Your task to perform on an android device: What's on my calendar today? Image 0: 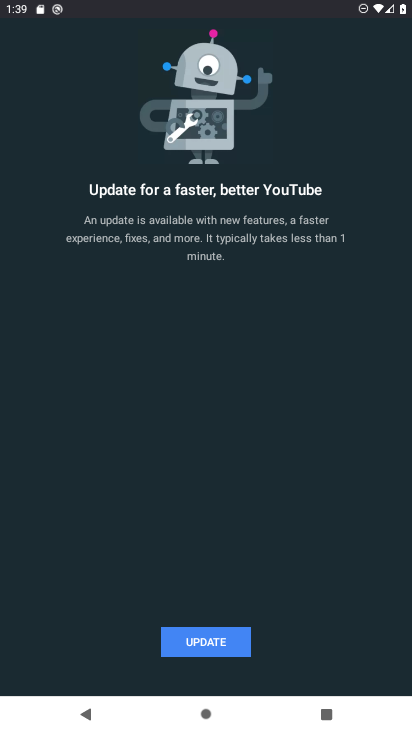
Step 0: press home button
Your task to perform on an android device: What's on my calendar today? Image 1: 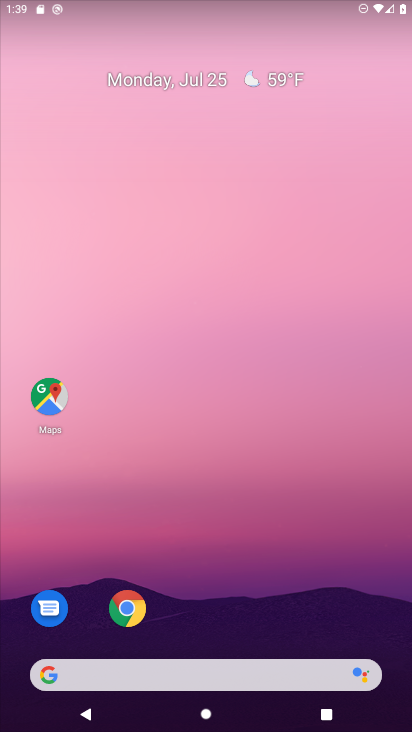
Step 1: drag from (346, 616) to (309, 354)
Your task to perform on an android device: What's on my calendar today? Image 2: 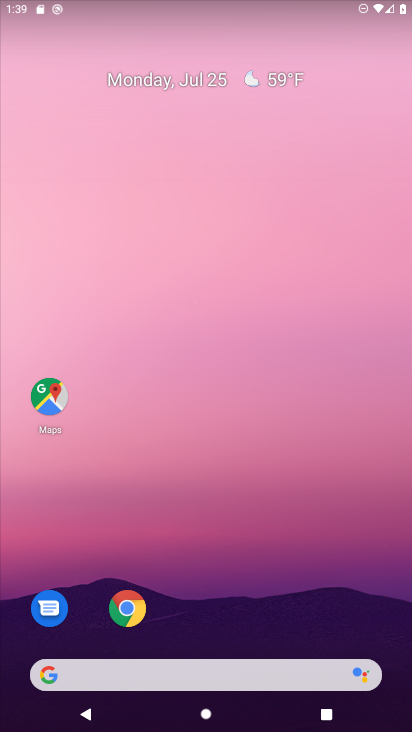
Step 2: drag from (317, 618) to (137, 121)
Your task to perform on an android device: What's on my calendar today? Image 3: 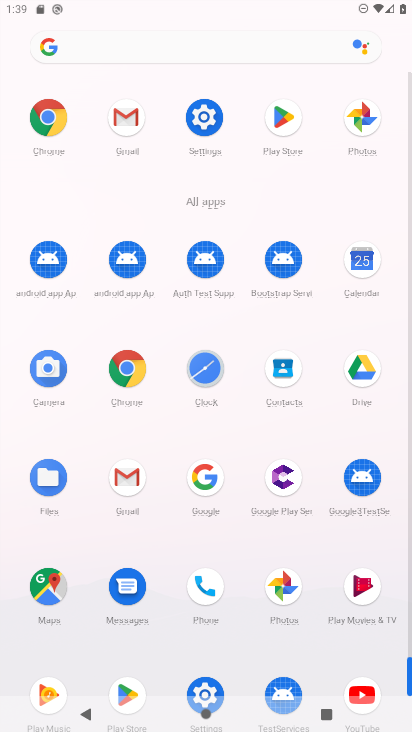
Step 3: click (361, 263)
Your task to perform on an android device: What's on my calendar today? Image 4: 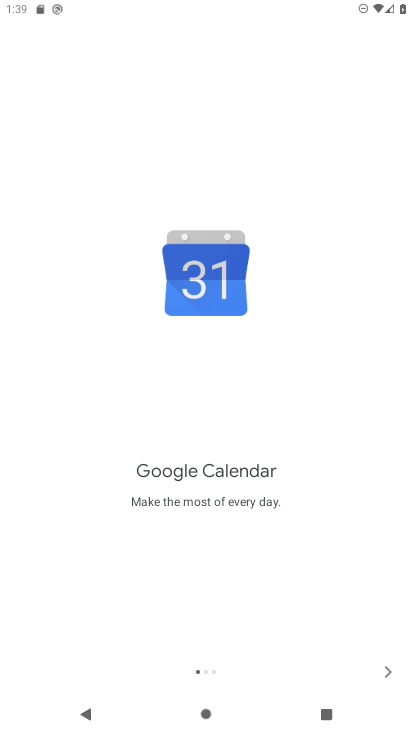
Step 4: click (388, 670)
Your task to perform on an android device: What's on my calendar today? Image 5: 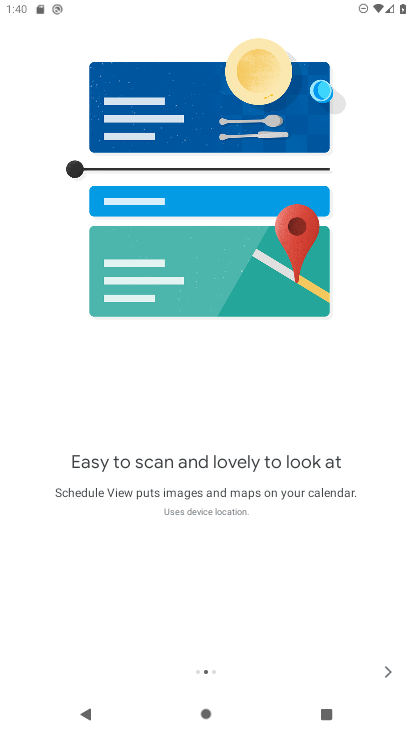
Step 5: click (388, 670)
Your task to perform on an android device: What's on my calendar today? Image 6: 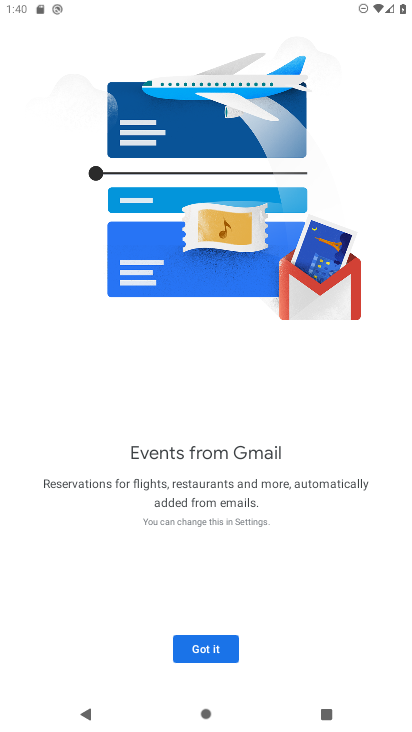
Step 6: click (206, 650)
Your task to perform on an android device: What's on my calendar today? Image 7: 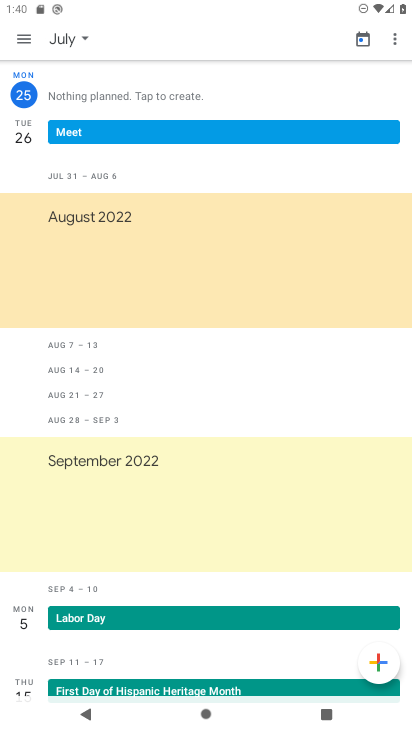
Step 7: click (25, 38)
Your task to perform on an android device: What's on my calendar today? Image 8: 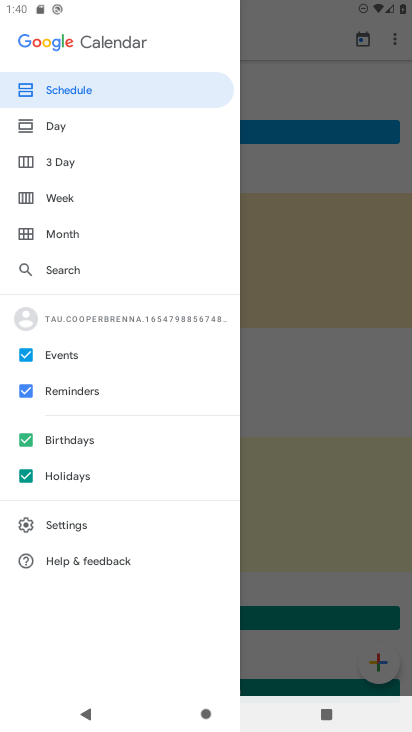
Step 8: click (50, 128)
Your task to perform on an android device: What's on my calendar today? Image 9: 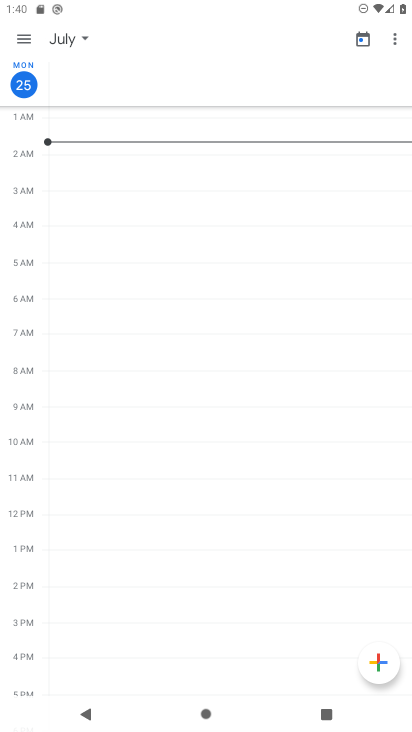
Step 9: task complete